Your task to perform on an android device: Open my contact list Image 0: 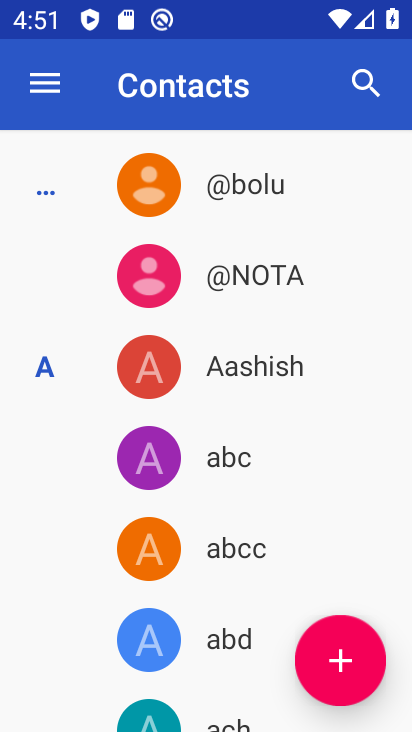
Step 0: drag from (218, 691) to (201, 300)
Your task to perform on an android device: Open my contact list Image 1: 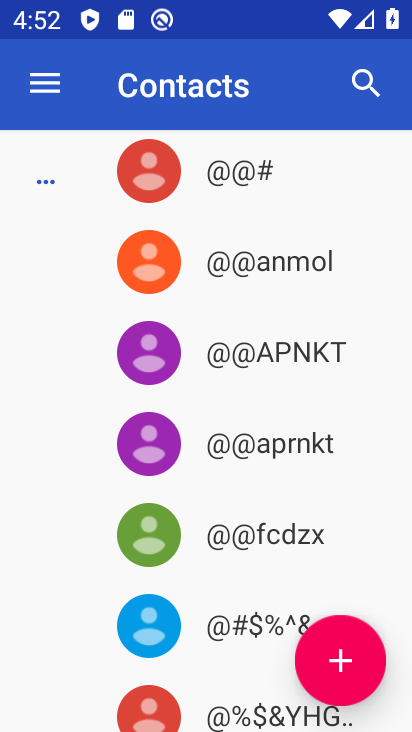
Step 1: task complete